Your task to perform on an android device: turn off wifi Image 0: 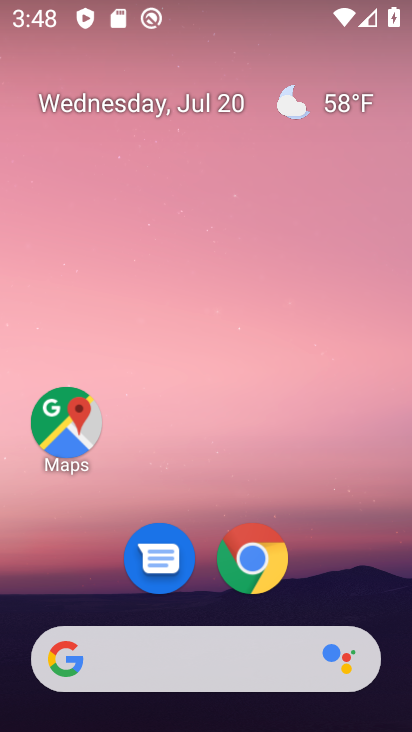
Step 0: drag from (67, 8) to (177, 699)
Your task to perform on an android device: turn off wifi Image 1: 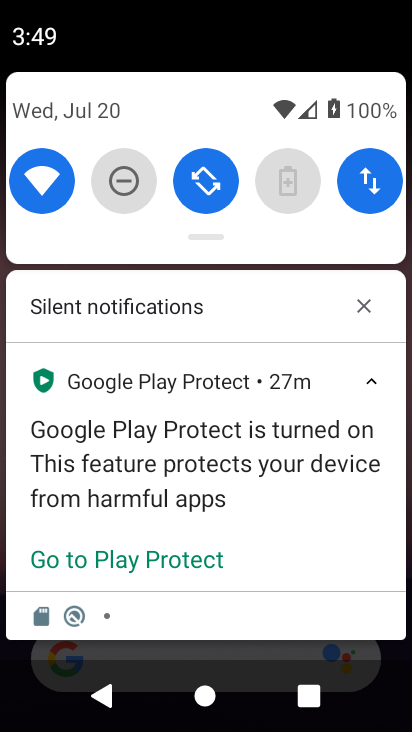
Step 1: click (54, 179)
Your task to perform on an android device: turn off wifi Image 2: 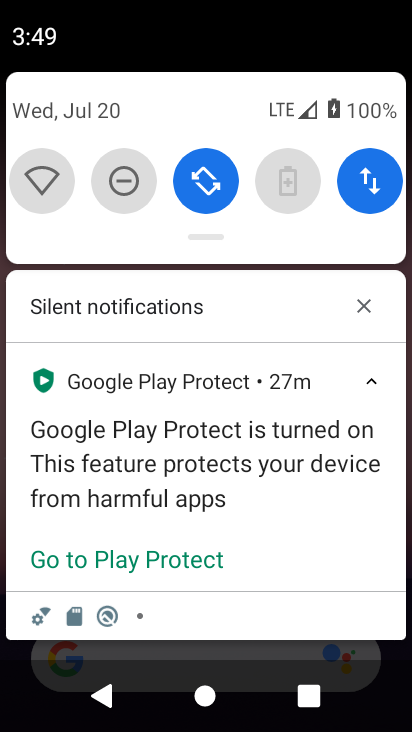
Step 2: task complete